Your task to perform on an android device: Search for the best rated Bluetooth earbuds on Ali express Image 0: 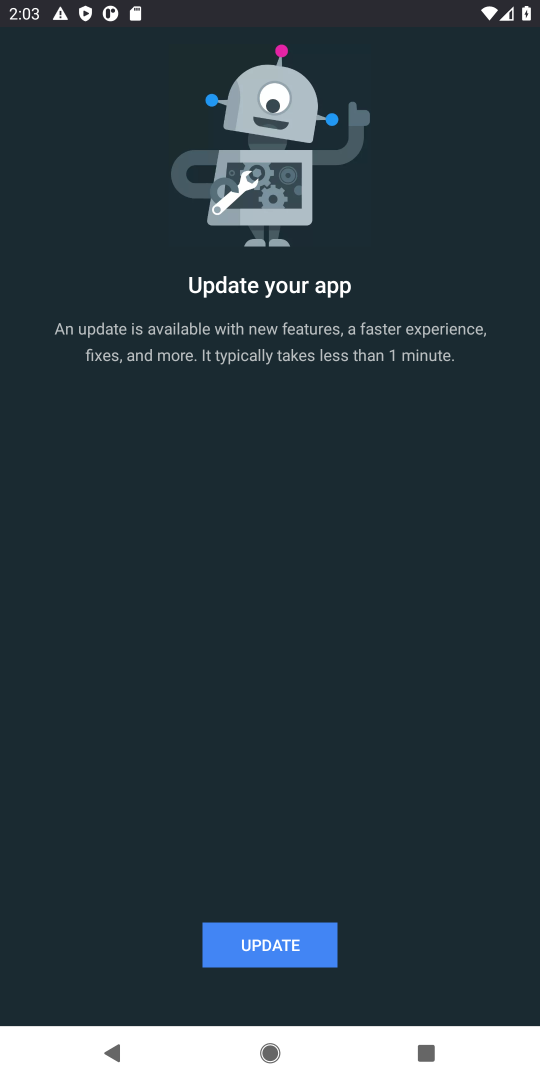
Step 0: press home button
Your task to perform on an android device: Search for the best rated Bluetooth earbuds on Ali express Image 1: 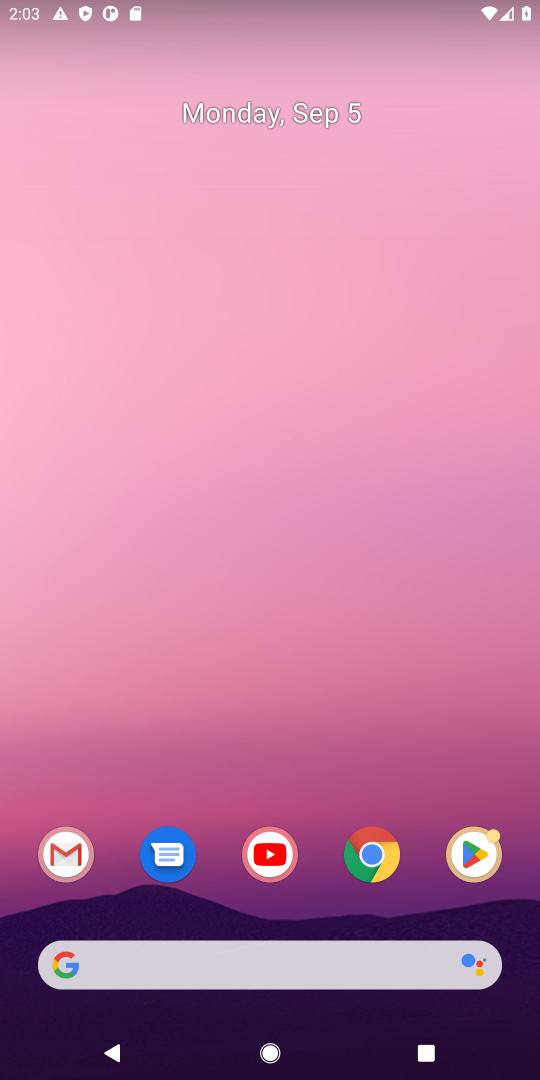
Step 1: click (402, 955)
Your task to perform on an android device: Search for the best rated Bluetooth earbuds on Ali express Image 2: 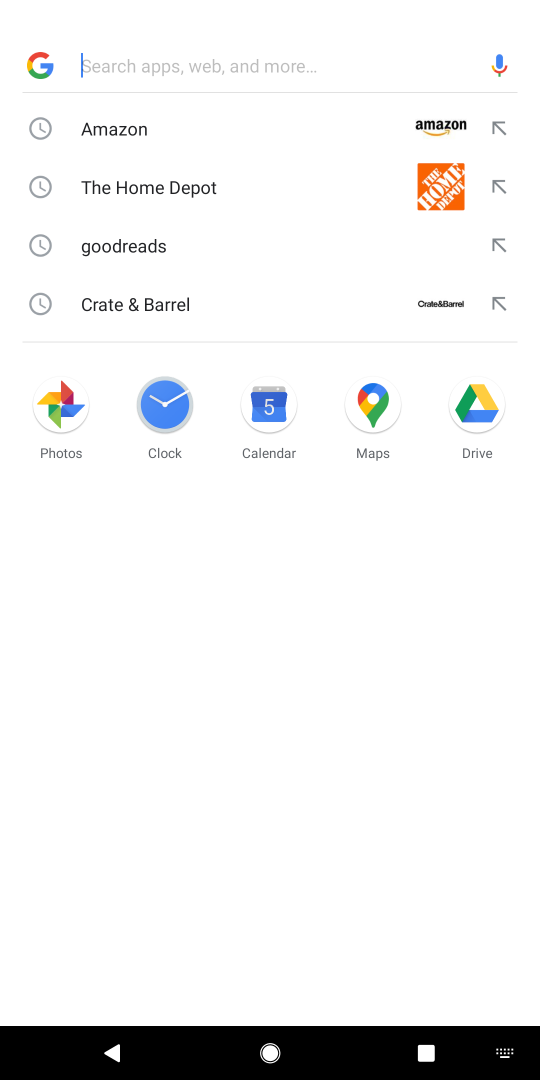
Step 2: type "ali express"
Your task to perform on an android device: Search for the best rated Bluetooth earbuds on Ali express Image 3: 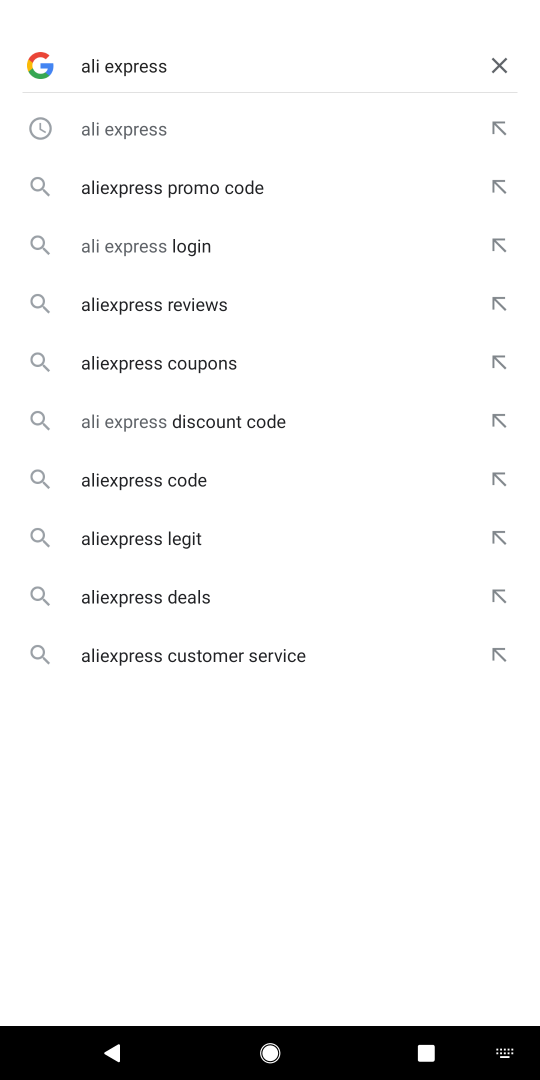
Step 3: press enter
Your task to perform on an android device: Search for the best rated Bluetooth earbuds on Ali express Image 4: 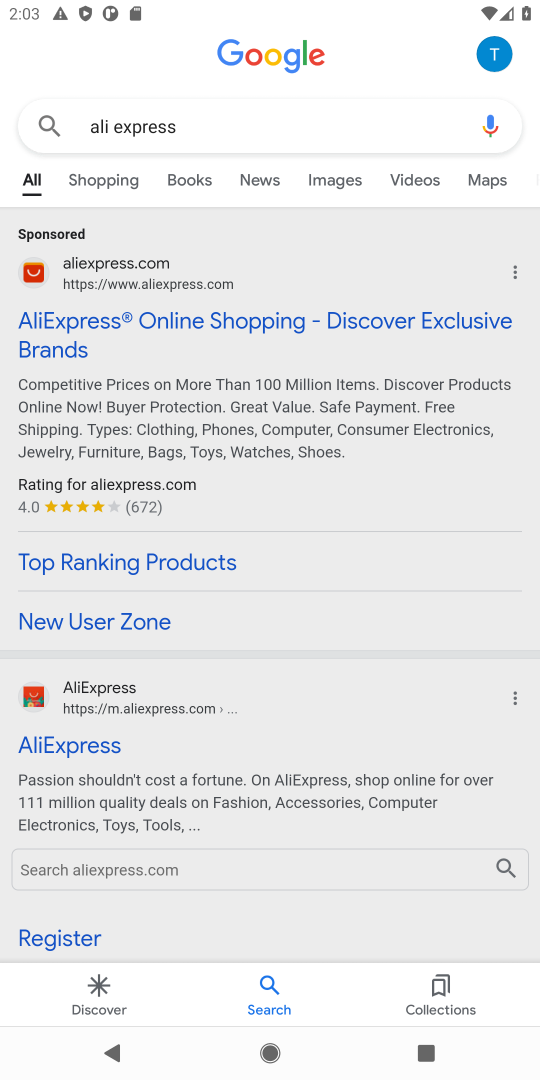
Step 4: click (259, 324)
Your task to perform on an android device: Search for the best rated Bluetooth earbuds on Ali express Image 5: 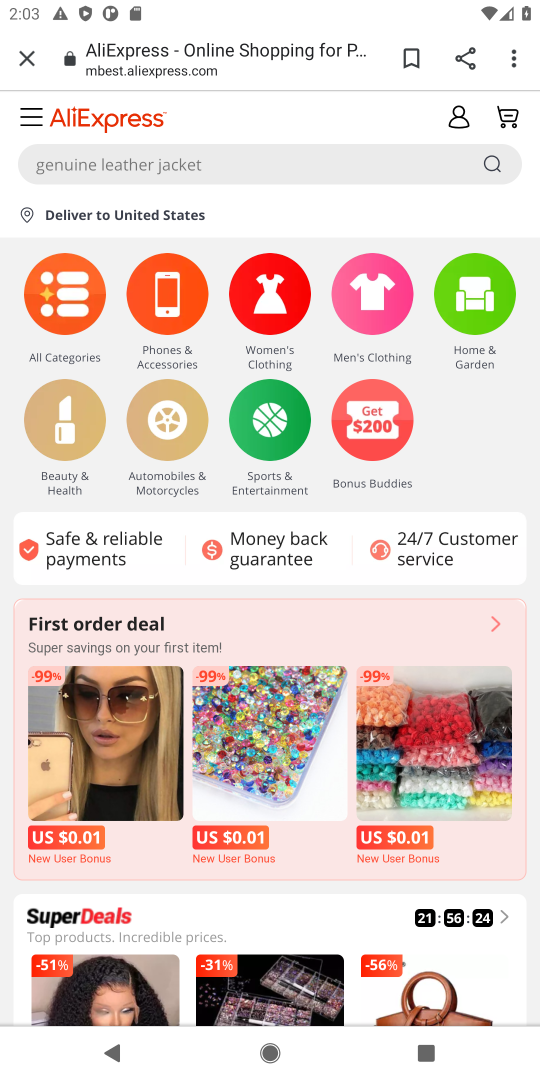
Step 5: click (117, 164)
Your task to perform on an android device: Search for the best rated Bluetooth earbuds on Ali express Image 6: 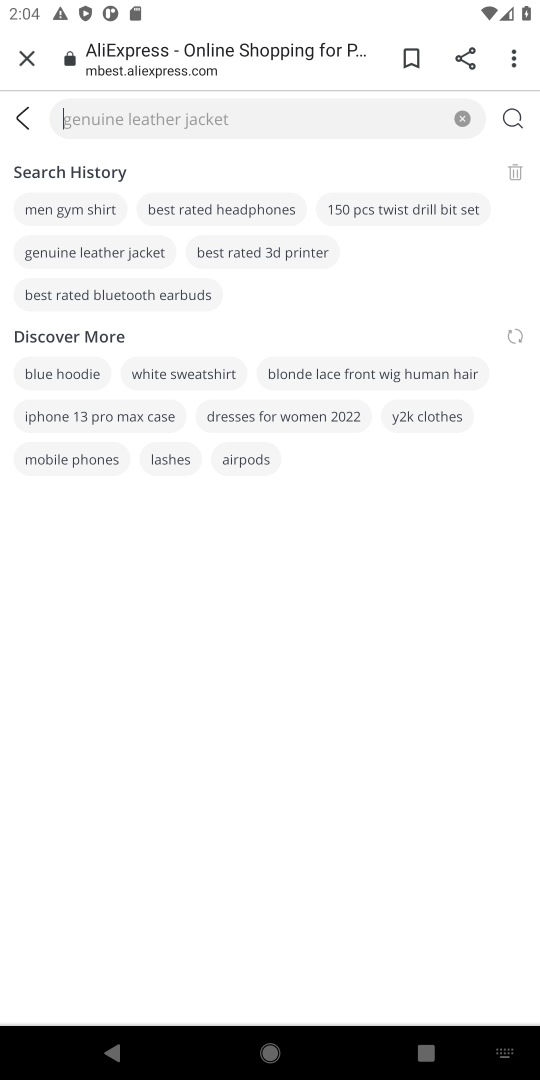
Step 6: type "best rated bluetooth earbuds"
Your task to perform on an android device: Search for the best rated Bluetooth earbuds on Ali express Image 7: 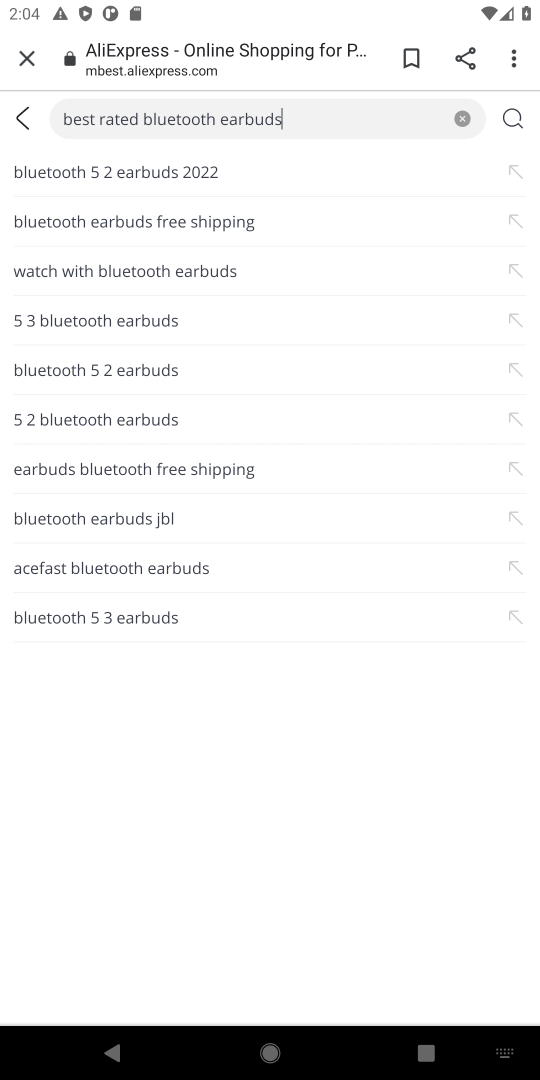
Step 7: click (512, 112)
Your task to perform on an android device: Search for the best rated Bluetooth earbuds on Ali express Image 8: 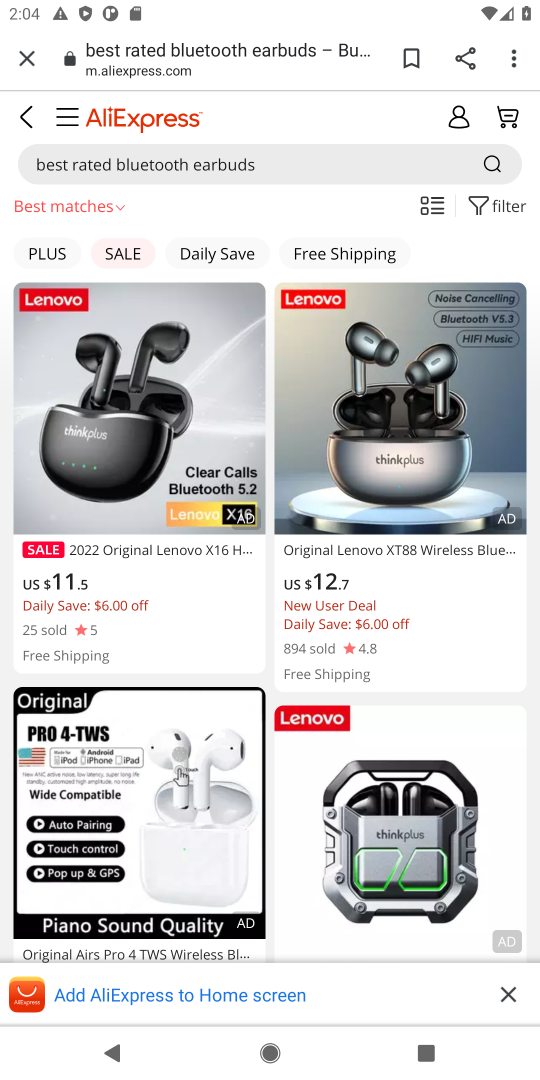
Step 8: task complete